Your task to perform on an android device: check data usage Image 0: 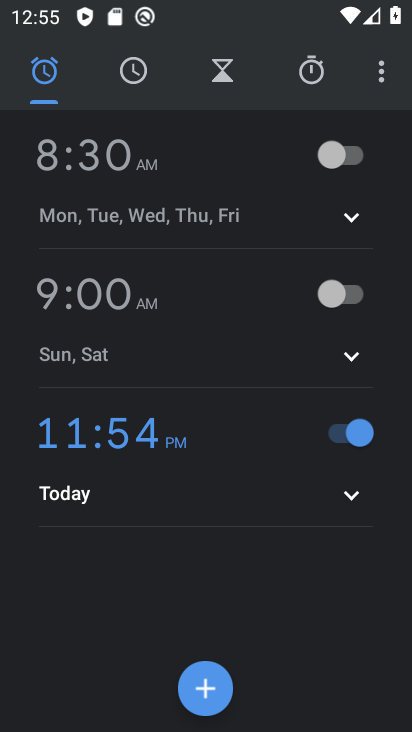
Step 0: press home button
Your task to perform on an android device: check data usage Image 1: 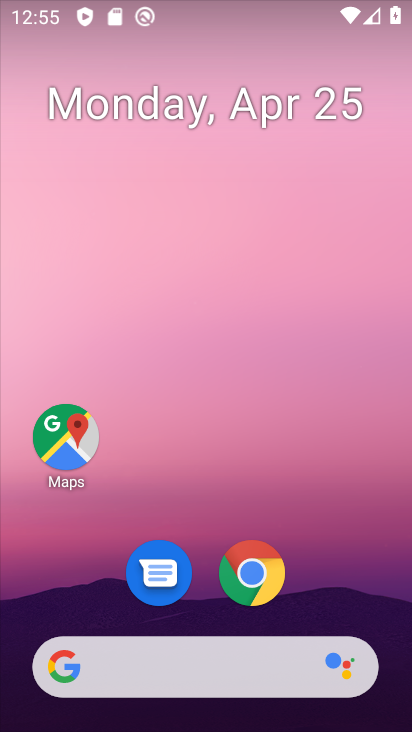
Step 1: drag from (191, 591) to (2, 157)
Your task to perform on an android device: check data usage Image 2: 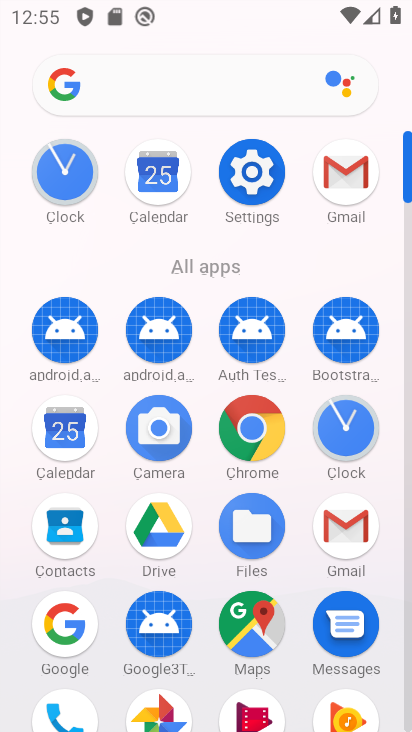
Step 2: click (250, 193)
Your task to perform on an android device: check data usage Image 3: 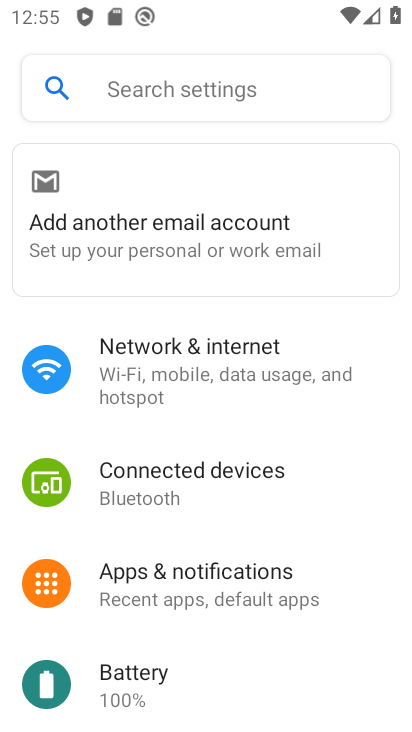
Step 3: click (243, 379)
Your task to perform on an android device: check data usage Image 4: 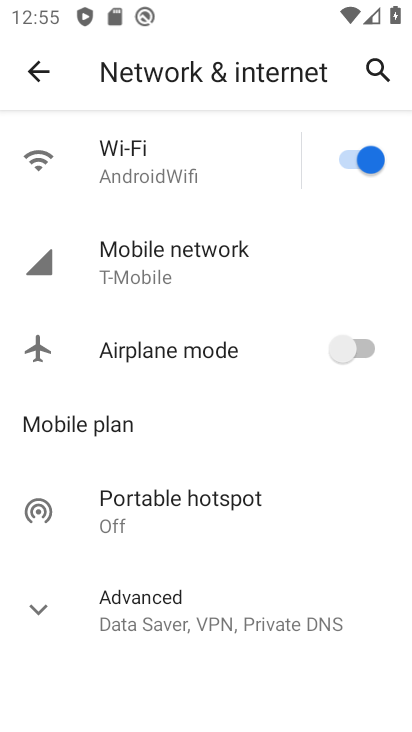
Step 4: click (222, 270)
Your task to perform on an android device: check data usage Image 5: 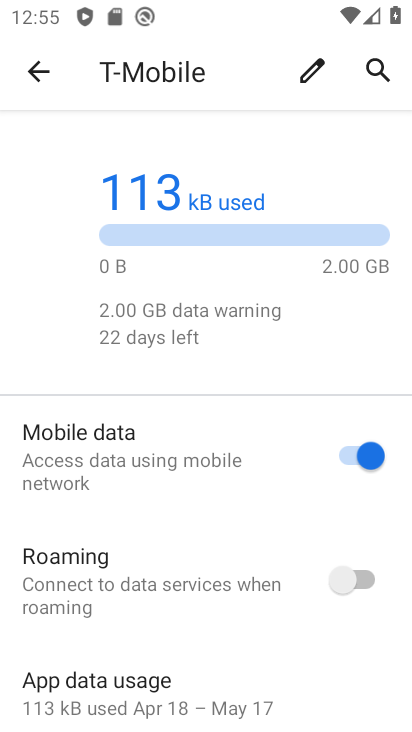
Step 5: task complete